Your task to perform on an android device: toggle notifications settings in the gmail app Image 0: 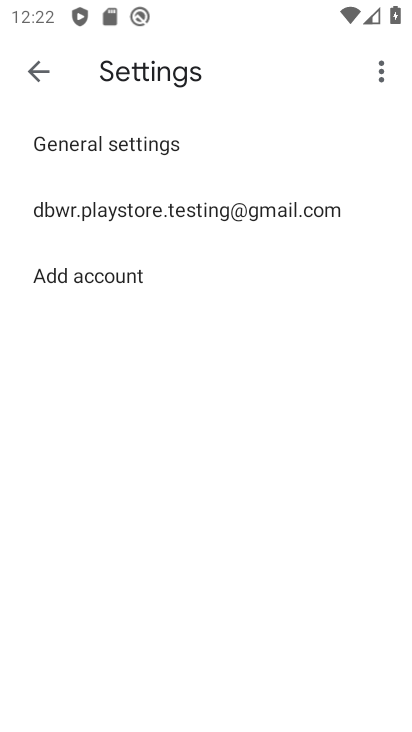
Step 0: press home button
Your task to perform on an android device: toggle notifications settings in the gmail app Image 1: 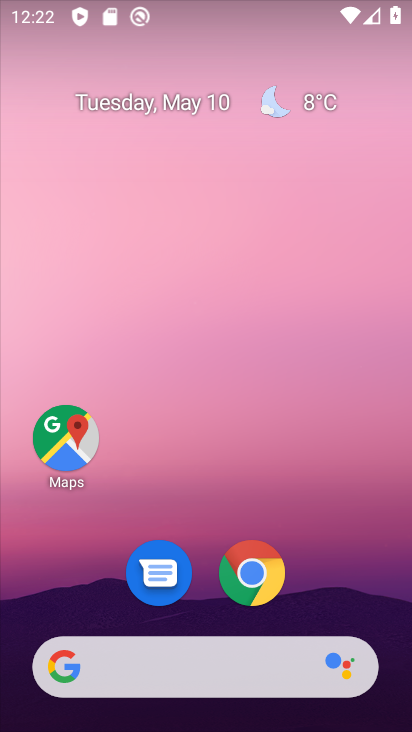
Step 1: drag from (231, 563) to (256, 64)
Your task to perform on an android device: toggle notifications settings in the gmail app Image 2: 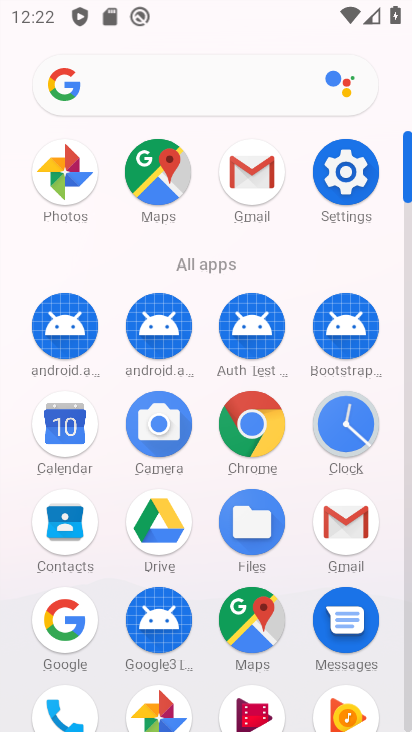
Step 2: click (354, 551)
Your task to perform on an android device: toggle notifications settings in the gmail app Image 3: 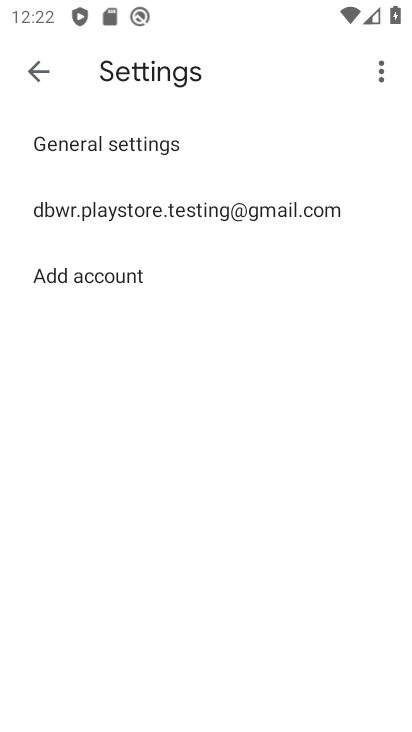
Step 3: click (146, 149)
Your task to perform on an android device: toggle notifications settings in the gmail app Image 4: 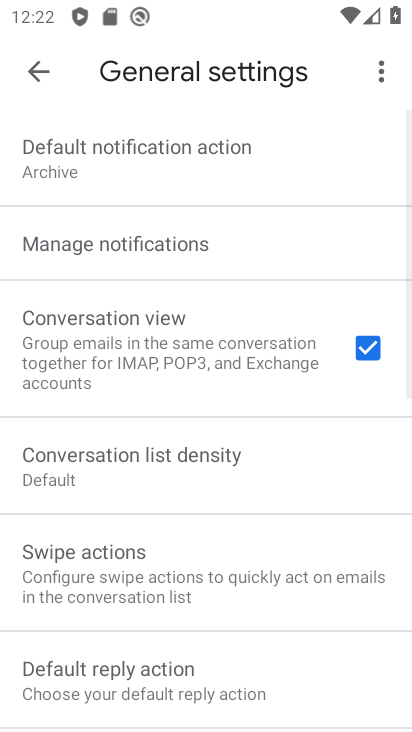
Step 4: click (139, 256)
Your task to perform on an android device: toggle notifications settings in the gmail app Image 5: 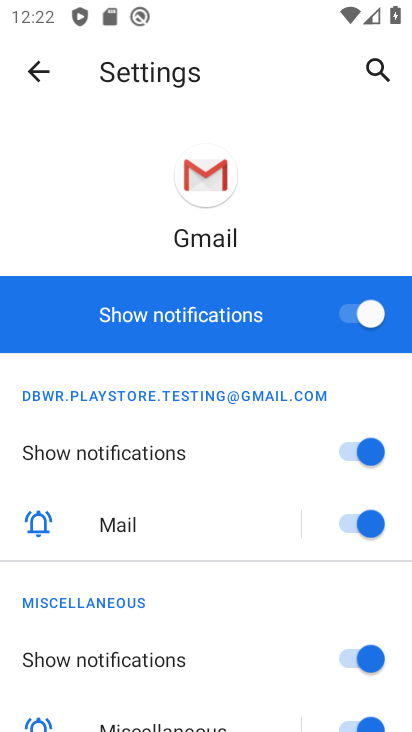
Step 5: click (358, 307)
Your task to perform on an android device: toggle notifications settings in the gmail app Image 6: 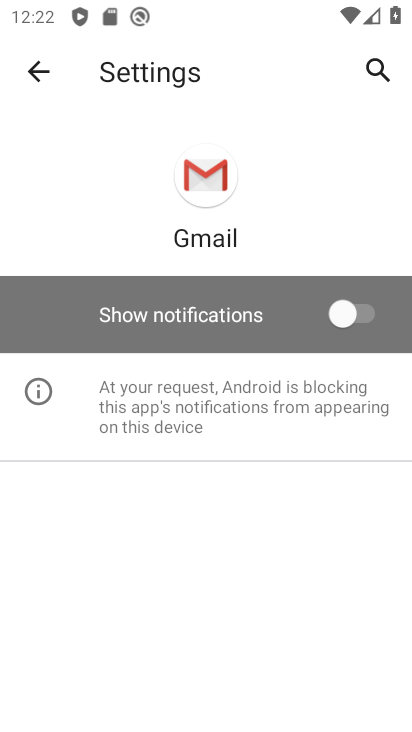
Step 6: task complete